Your task to perform on an android device: Open Youtube and go to "Your channel" Image 0: 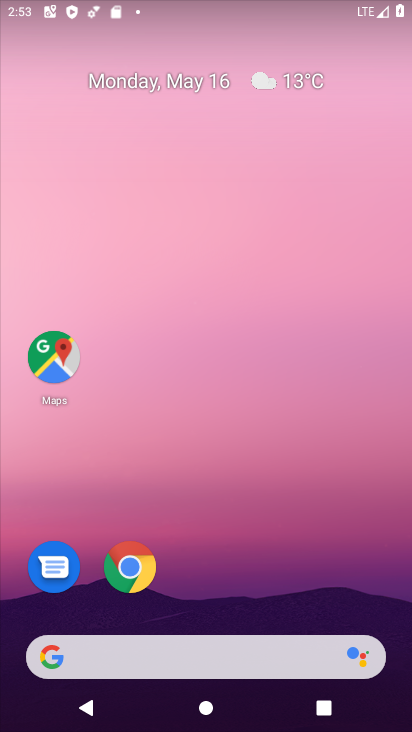
Step 0: drag from (307, 464) to (347, 111)
Your task to perform on an android device: Open Youtube and go to "Your channel" Image 1: 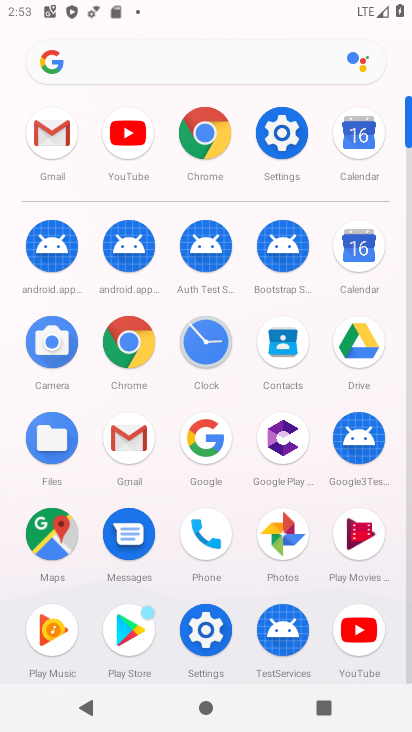
Step 1: click (135, 133)
Your task to perform on an android device: Open Youtube and go to "Your channel" Image 2: 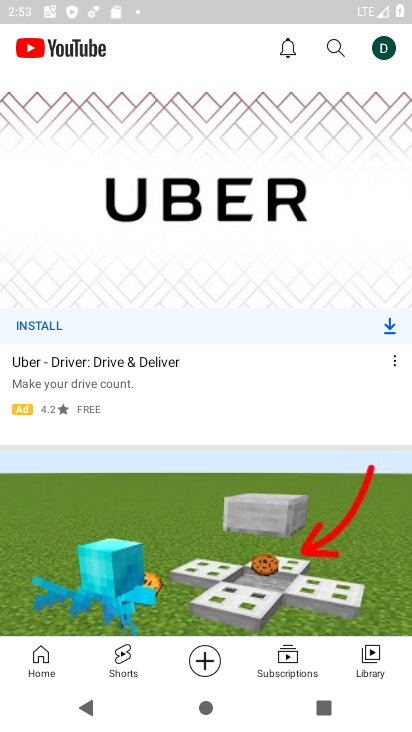
Step 2: click (388, 42)
Your task to perform on an android device: Open Youtube and go to "Your channel" Image 3: 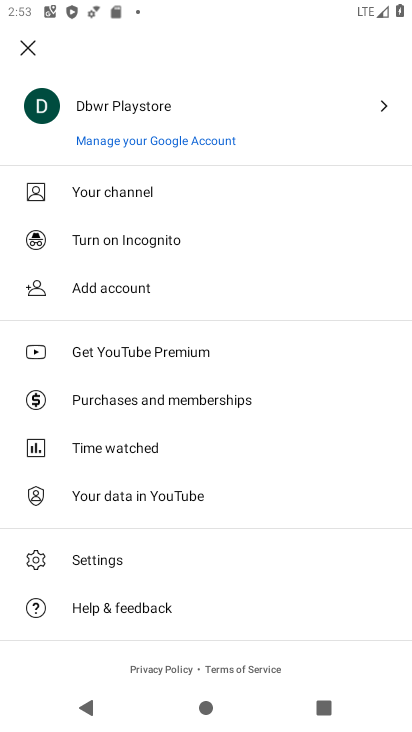
Step 3: click (147, 187)
Your task to perform on an android device: Open Youtube and go to "Your channel" Image 4: 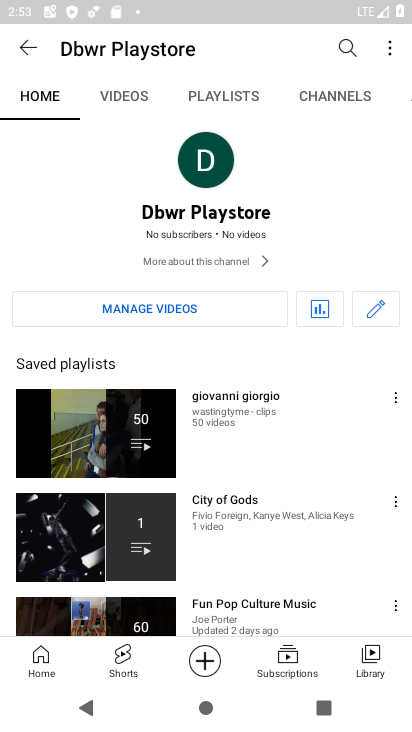
Step 4: task complete